Your task to perform on an android device: turn on the 12-hour format for clock Image 0: 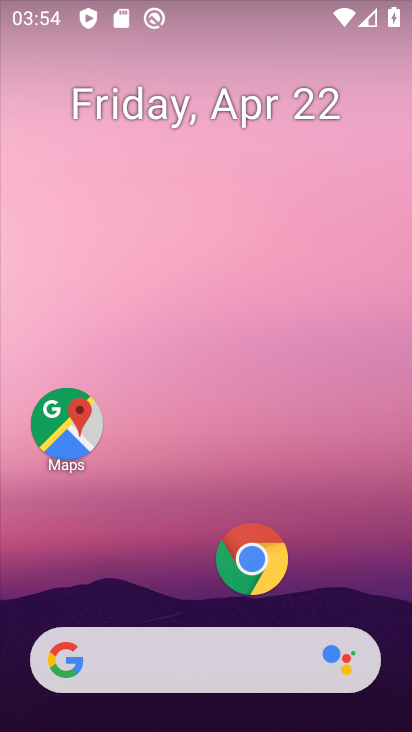
Step 0: drag from (149, 591) to (231, 69)
Your task to perform on an android device: turn on the 12-hour format for clock Image 1: 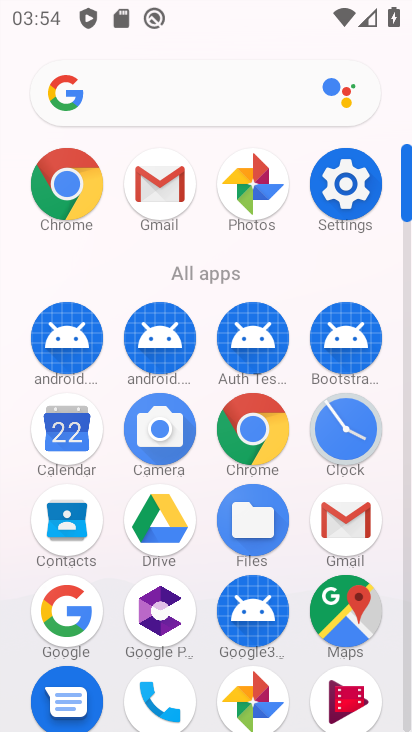
Step 1: click (338, 210)
Your task to perform on an android device: turn on the 12-hour format for clock Image 2: 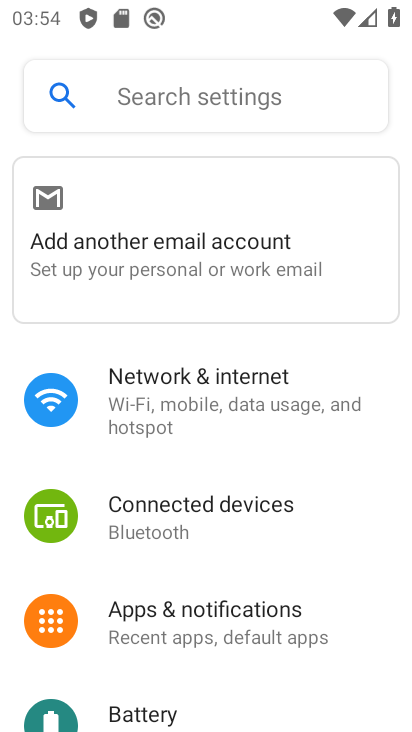
Step 2: drag from (149, 650) to (243, 180)
Your task to perform on an android device: turn on the 12-hour format for clock Image 3: 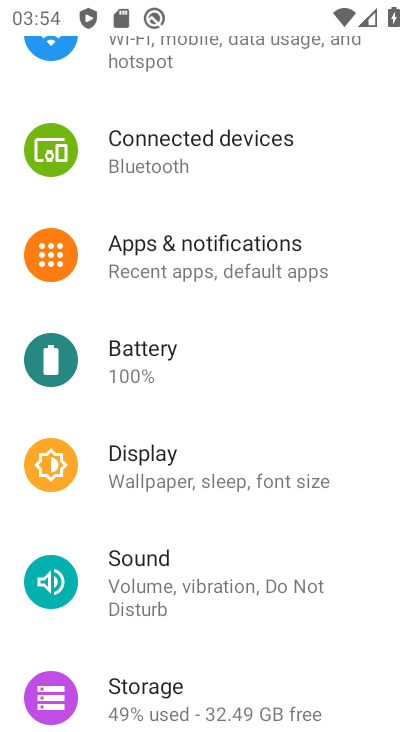
Step 3: drag from (123, 553) to (142, 136)
Your task to perform on an android device: turn on the 12-hour format for clock Image 4: 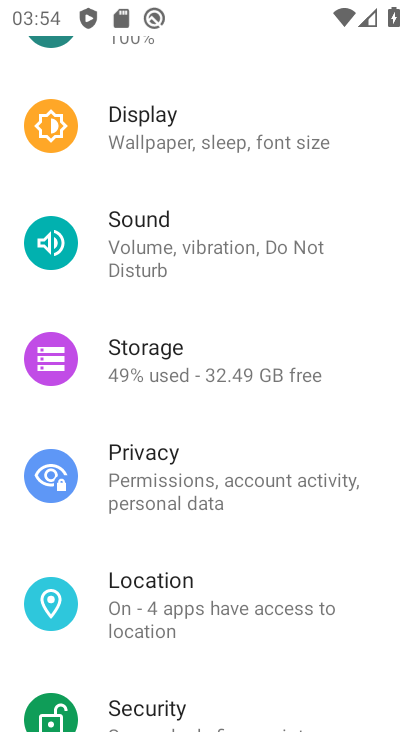
Step 4: drag from (213, 670) to (259, 360)
Your task to perform on an android device: turn on the 12-hour format for clock Image 5: 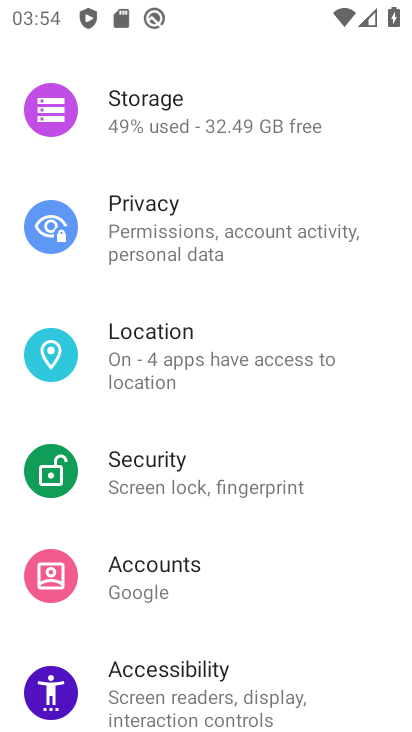
Step 5: drag from (199, 608) to (282, 121)
Your task to perform on an android device: turn on the 12-hour format for clock Image 6: 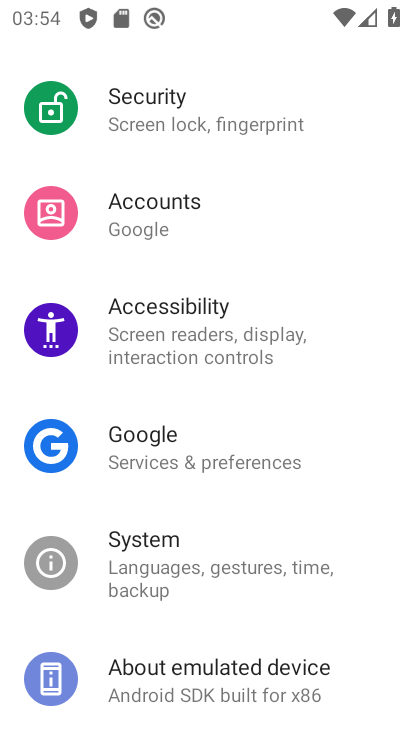
Step 6: click (150, 569)
Your task to perform on an android device: turn on the 12-hour format for clock Image 7: 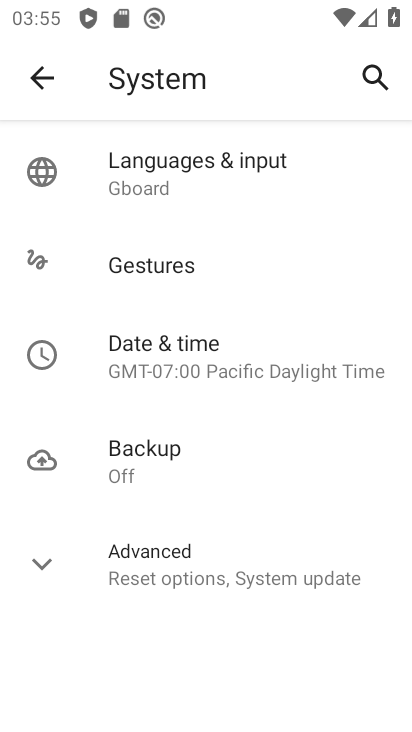
Step 7: click (199, 362)
Your task to perform on an android device: turn on the 12-hour format for clock Image 8: 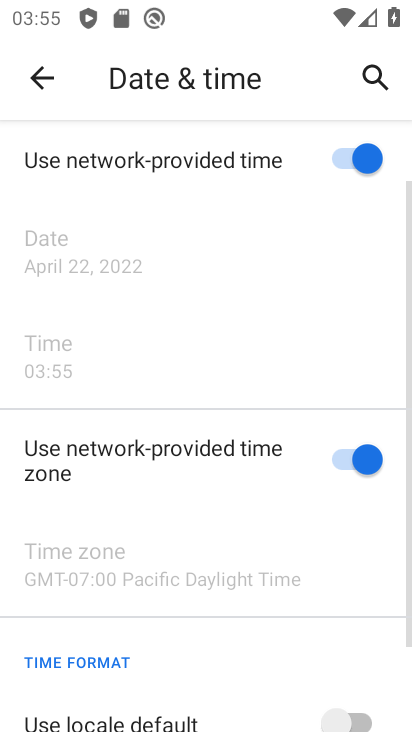
Step 8: drag from (190, 655) to (223, 414)
Your task to perform on an android device: turn on the 12-hour format for clock Image 9: 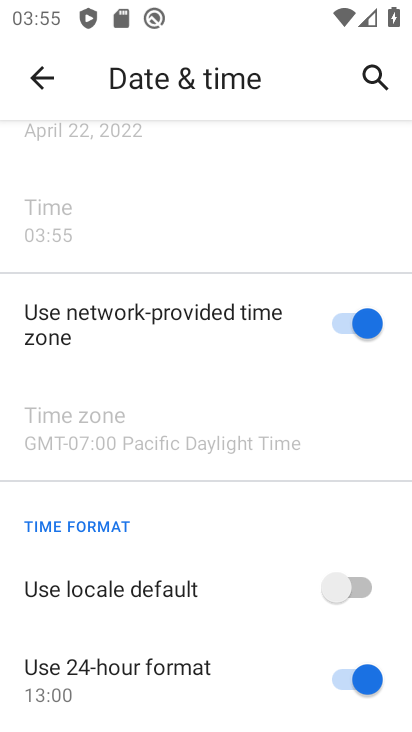
Step 9: click (356, 582)
Your task to perform on an android device: turn on the 12-hour format for clock Image 10: 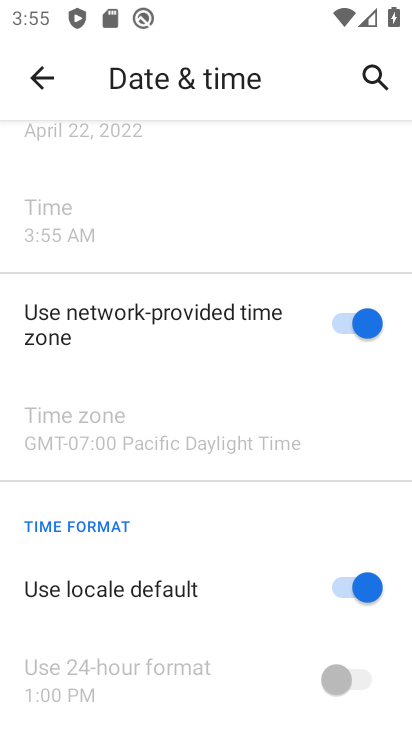
Step 10: task complete